Your task to perform on an android device: Search for Italian restaurants on Maps Image 0: 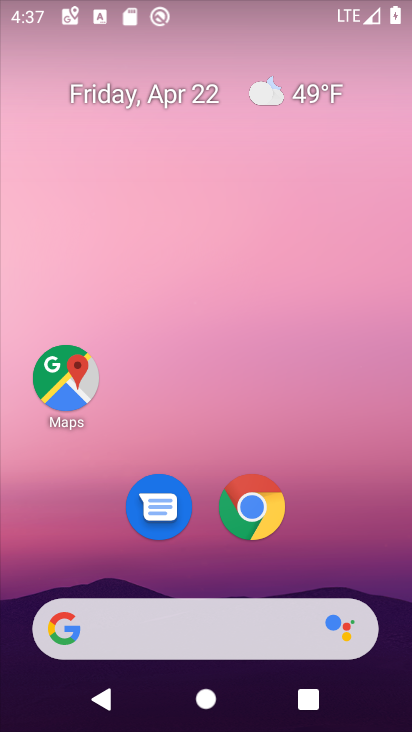
Step 0: click (59, 376)
Your task to perform on an android device: Search for Italian restaurants on Maps Image 1: 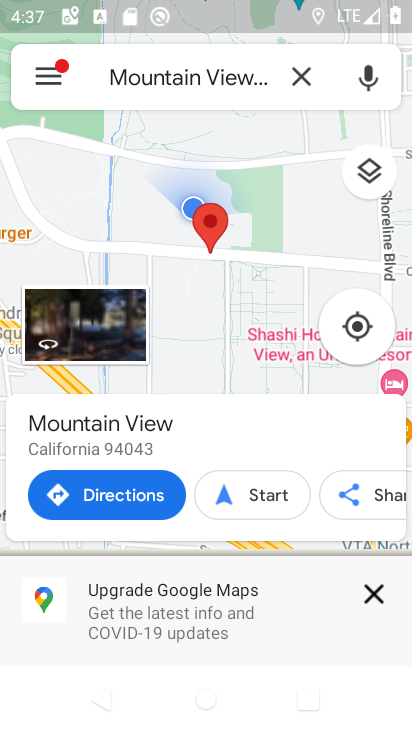
Step 1: click (301, 80)
Your task to perform on an android device: Search for Italian restaurants on Maps Image 2: 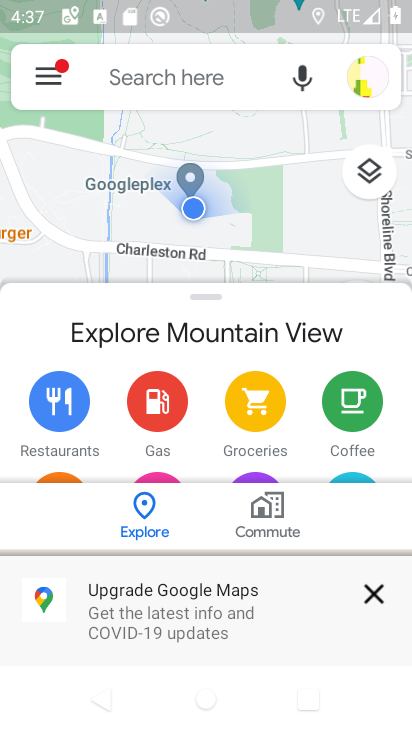
Step 2: click (137, 75)
Your task to perform on an android device: Search for Italian restaurants on Maps Image 3: 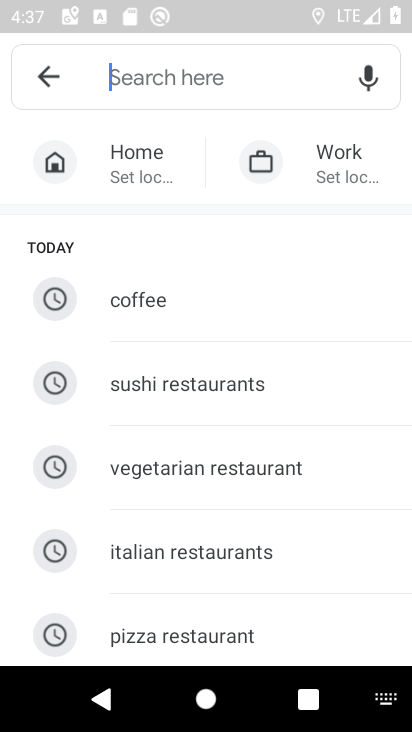
Step 3: type "italian restaurants"
Your task to perform on an android device: Search for Italian restaurants on Maps Image 4: 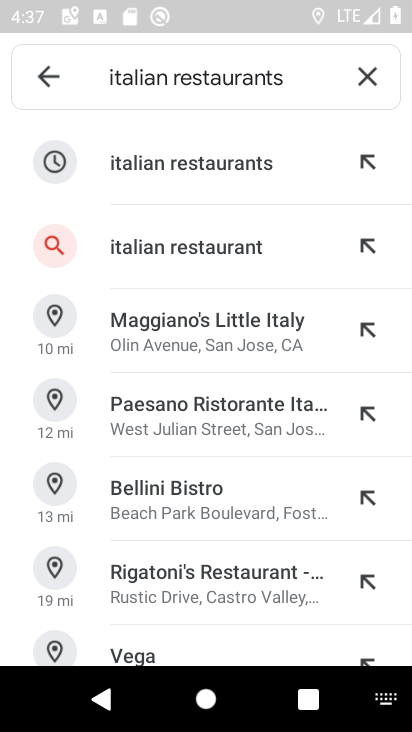
Step 4: click (175, 162)
Your task to perform on an android device: Search for Italian restaurants on Maps Image 5: 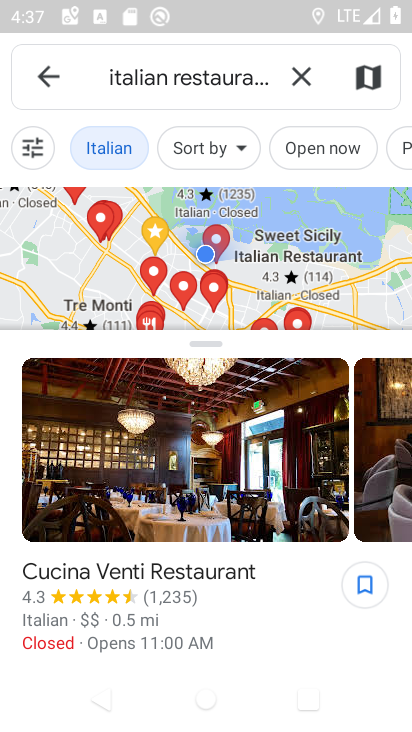
Step 5: task complete